Your task to perform on an android device: What is the recent news? Image 0: 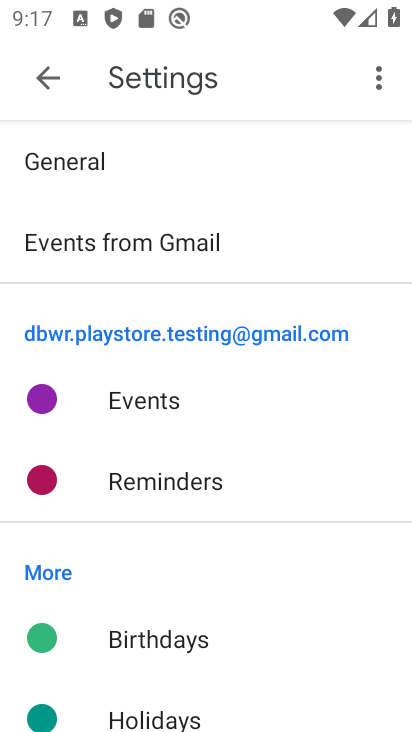
Step 0: press home button
Your task to perform on an android device: What is the recent news? Image 1: 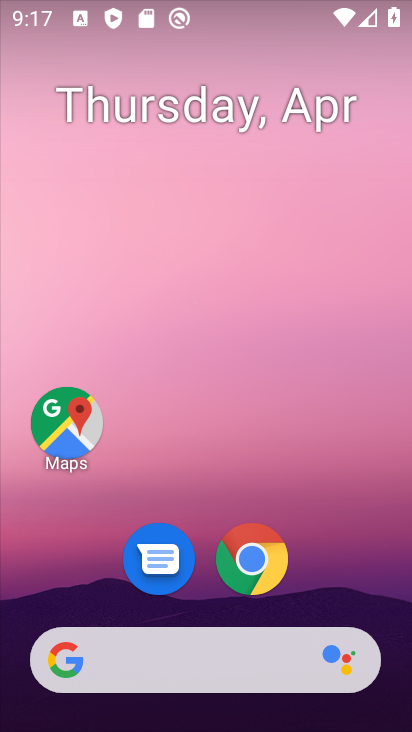
Step 1: click (267, 661)
Your task to perform on an android device: What is the recent news? Image 2: 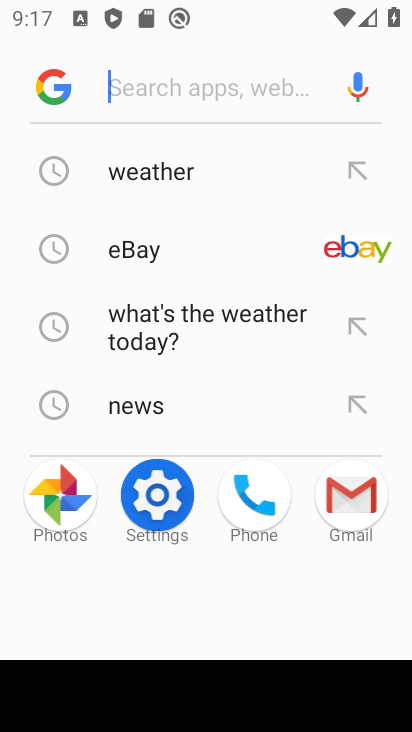
Step 2: type "recent news"
Your task to perform on an android device: What is the recent news? Image 3: 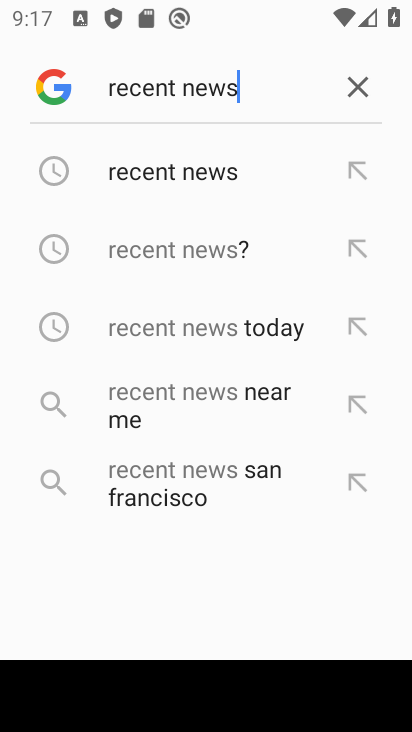
Step 3: click (209, 174)
Your task to perform on an android device: What is the recent news? Image 4: 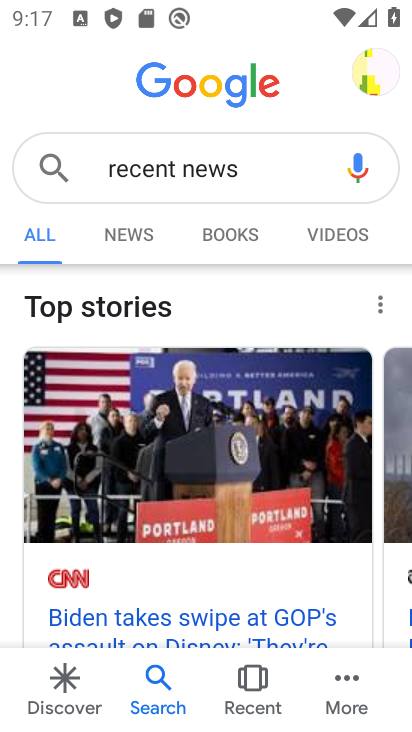
Step 4: task complete